Your task to perform on an android device: What's on the menu at Denny's? Image 0: 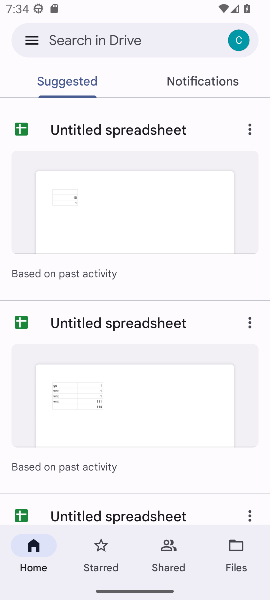
Step 0: press home button
Your task to perform on an android device: What's on the menu at Denny's? Image 1: 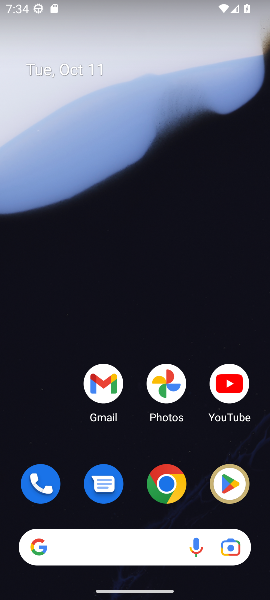
Step 1: drag from (113, 507) to (192, 3)
Your task to perform on an android device: What's on the menu at Denny's? Image 2: 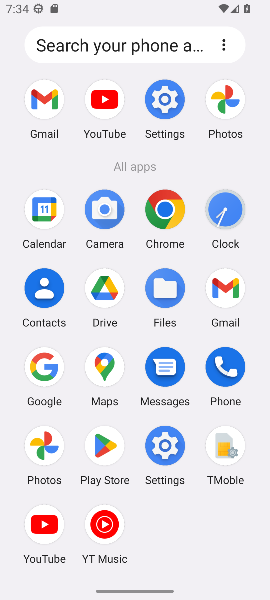
Step 2: click (159, 213)
Your task to perform on an android device: What's on the menu at Denny's? Image 3: 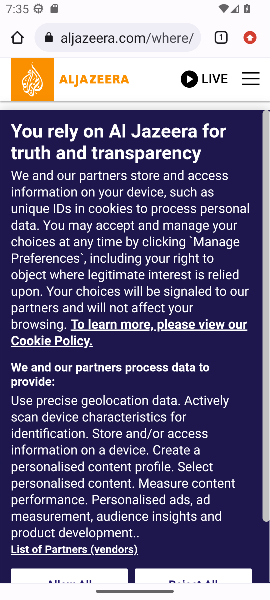
Step 3: click (90, 27)
Your task to perform on an android device: What's on the menu at Denny's? Image 4: 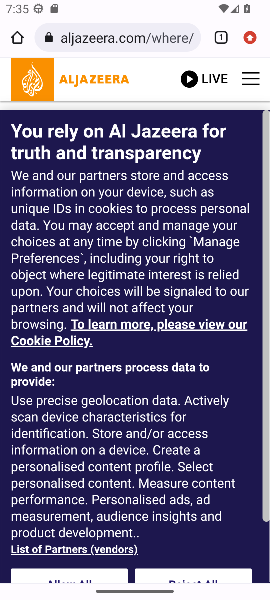
Step 4: click (90, 27)
Your task to perform on an android device: What's on the menu at Denny's? Image 5: 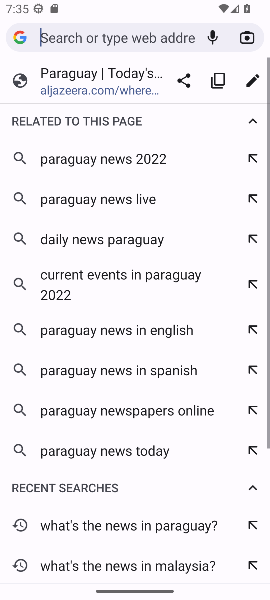
Step 5: click (98, 39)
Your task to perform on an android device: What's on the menu at Denny's? Image 6: 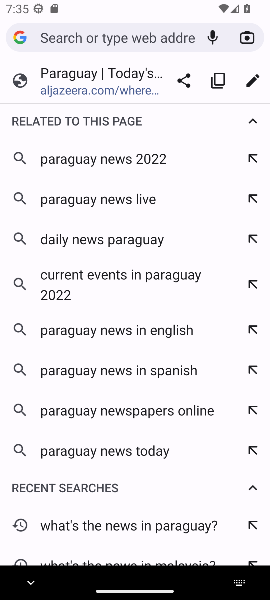
Step 6: type "What's on the menu at Denny's?"
Your task to perform on an android device: What's on the menu at Denny's? Image 7: 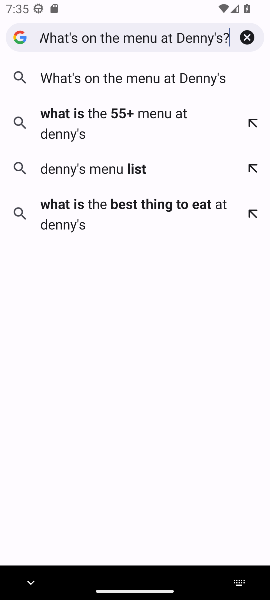
Step 7: press enter
Your task to perform on an android device: What's on the menu at Denny's? Image 8: 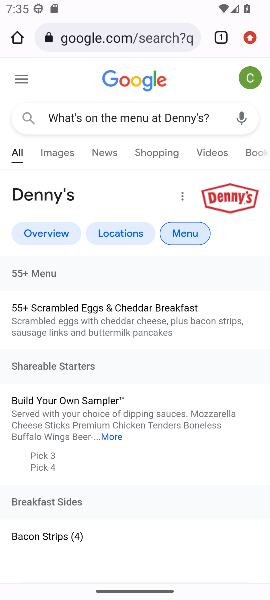
Step 8: task complete